Your task to perform on an android device: What's on my calendar today? Image 0: 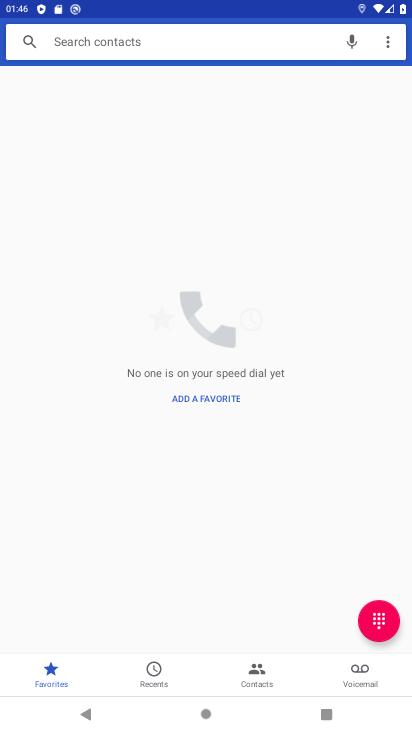
Step 0: press home button
Your task to perform on an android device: What's on my calendar today? Image 1: 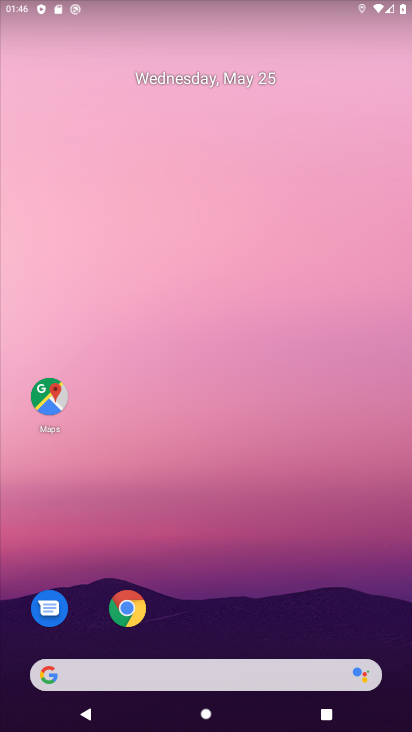
Step 1: drag from (243, 637) to (250, 186)
Your task to perform on an android device: What's on my calendar today? Image 2: 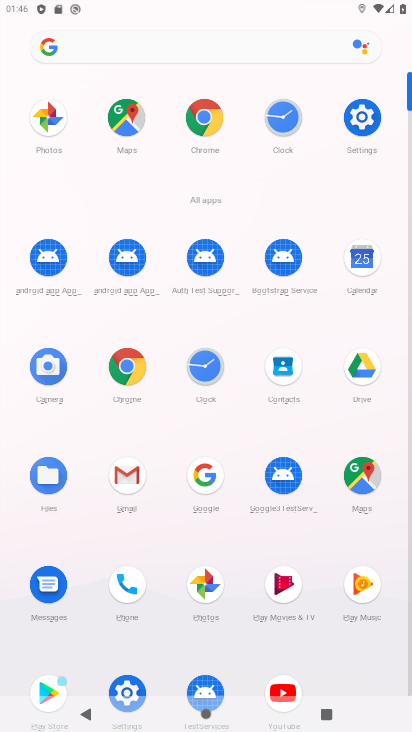
Step 2: click (357, 264)
Your task to perform on an android device: What's on my calendar today? Image 3: 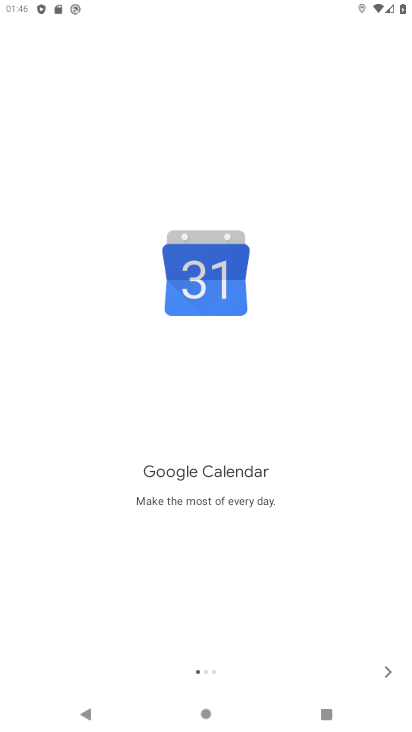
Step 3: click (384, 677)
Your task to perform on an android device: What's on my calendar today? Image 4: 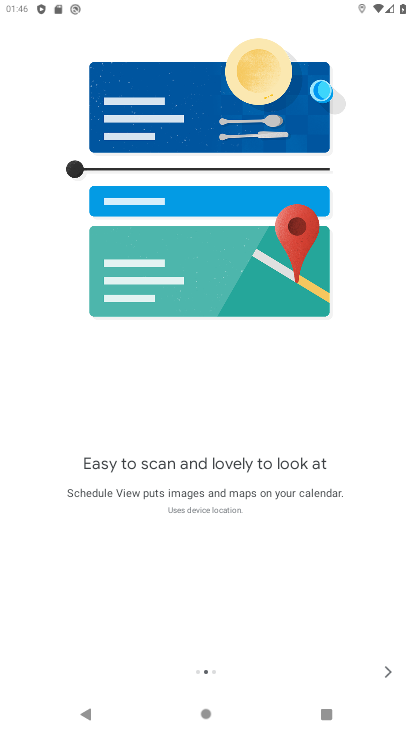
Step 4: click (384, 677)
Your task to perform on an android device: What's on my calendar today? Image 5: 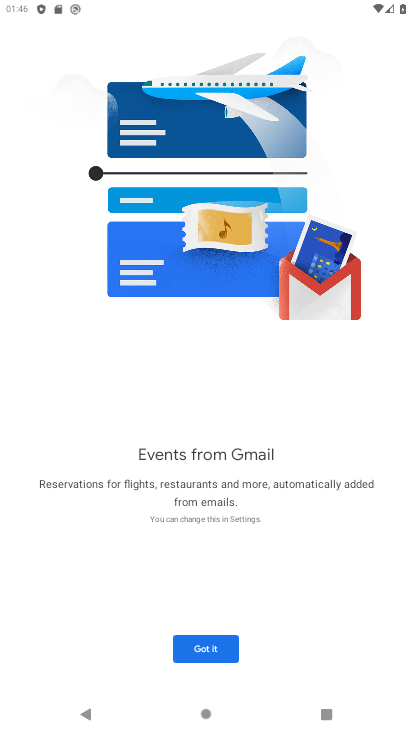
Step 5: click (223, 648)
Your task to perform on an android device: What's on my calendar today? Image 6: 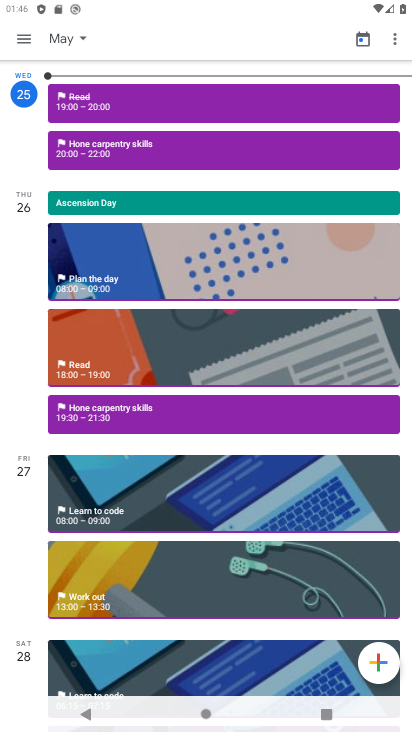
Step 6: task complete